Your task to perform on an android device: Go to Android settings Image 0: 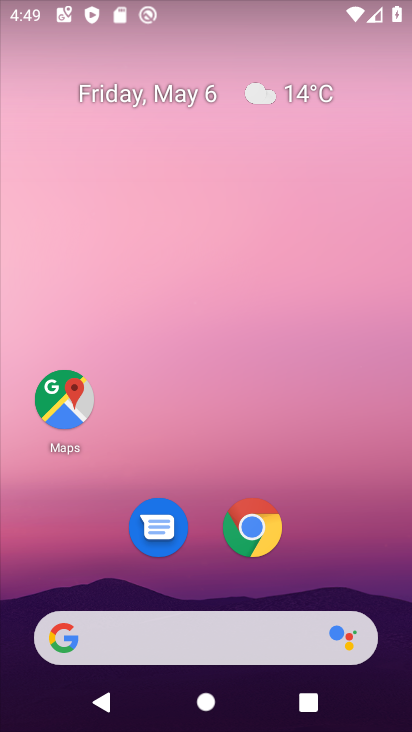
Step 0: drag from (335, 568) to (403, 66)
Your task to perform on an android device: Go to Android settings Image 1: 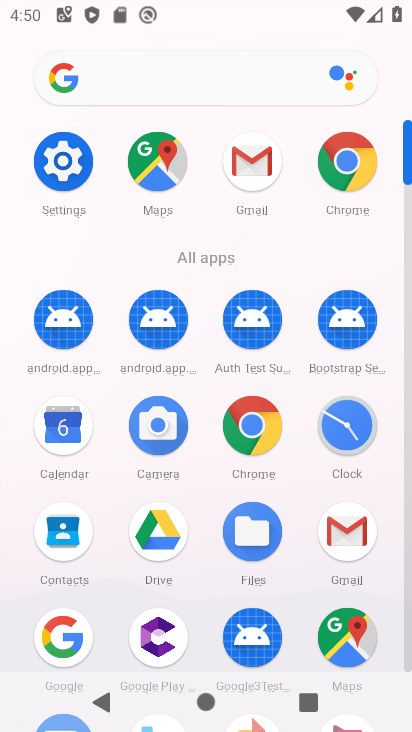
Step 1: click (48, 159)
Your task to perform on an android device: Go to Android settings Image 2: 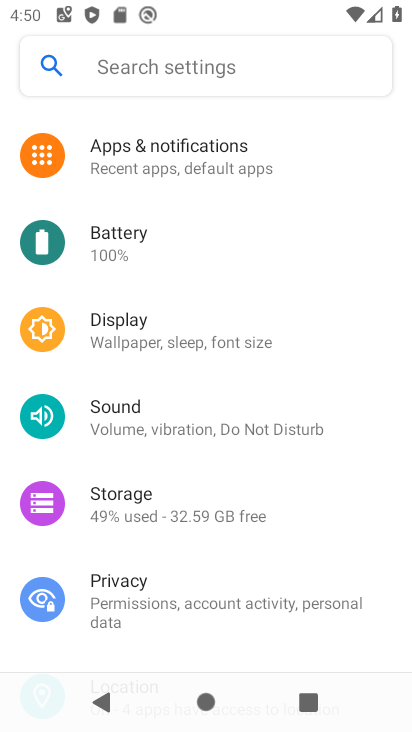
Step 2: task complete